Your task to perform on an android device: Go to battery settings Image 0: 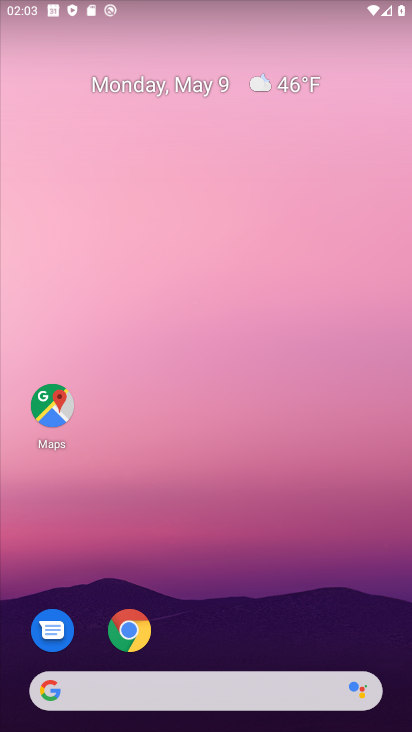
Step 0: drag from (238, 607) to (204, 44)
Your task to perform on an android device: Go to battery settings Image 1: 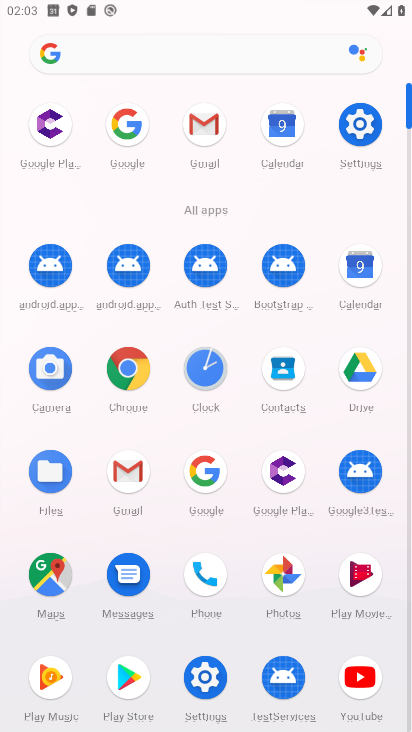
Step 1: click (207, 678)
Your task to perform on an android device: Go to battery settings Image 2: 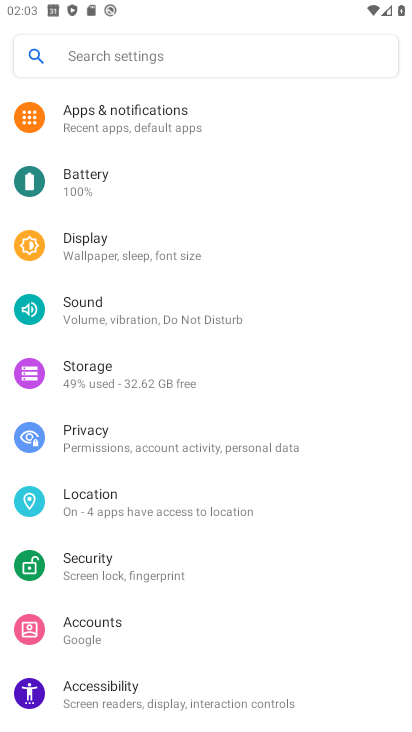
Step 2: click (111, 175)
Your task to perform on an android device: Go to battery settings Image 3: 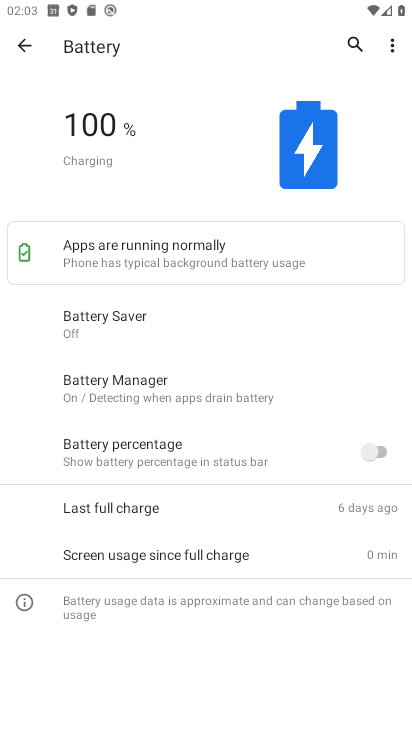
Step 3: task complete